Your task to perform on an android device: Go to settings Image 0: 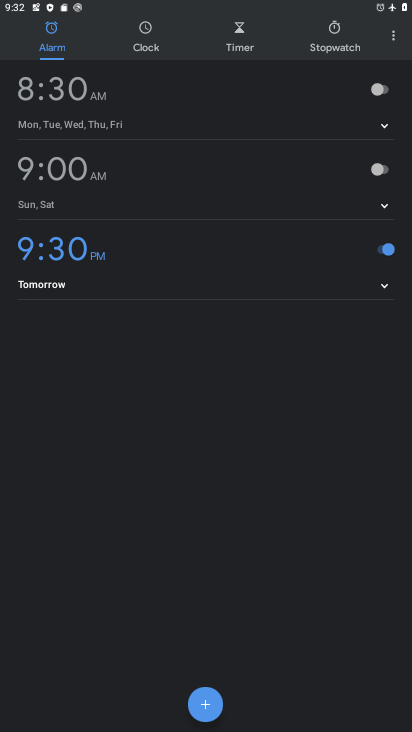
Step 0: press home button
Your task to perform on an android device: Go to settings Image 1: 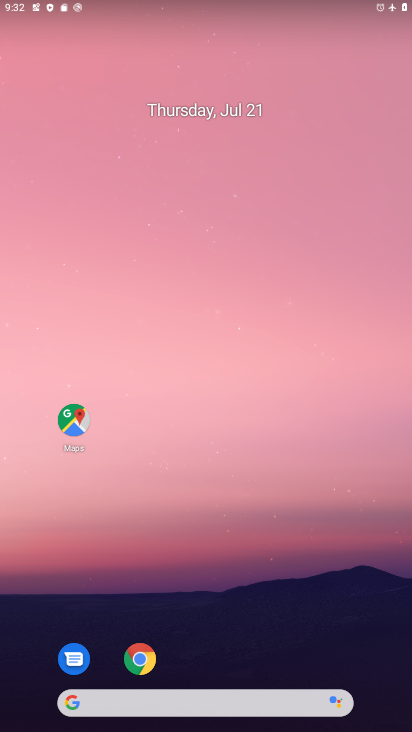
Step 1: drag from (241, 672) to (294, 6)
Your task to perform on an android device: Go to settings Image 2: 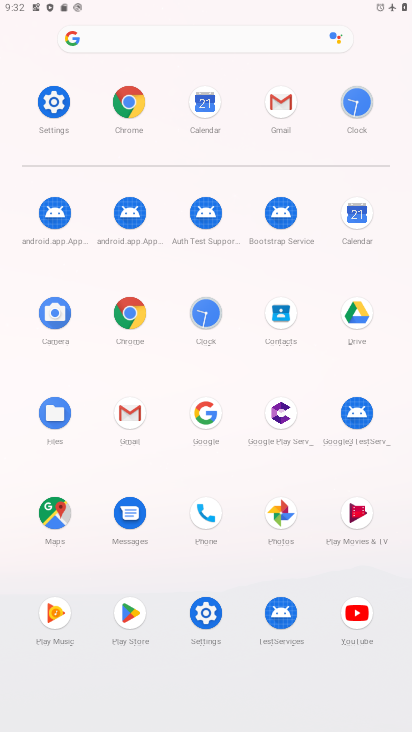
Step 2: click (213, 612)
Your task to perform on an android device: Go to settings Image 3: 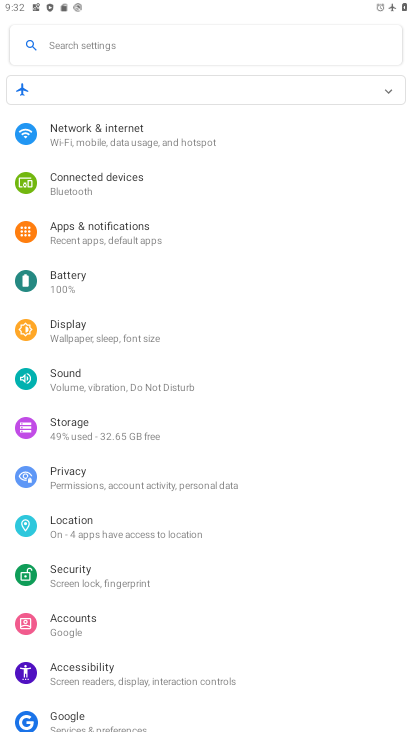
Step 3: task complete